Your task to perform on an android device: open device folders in google photos Image 0: 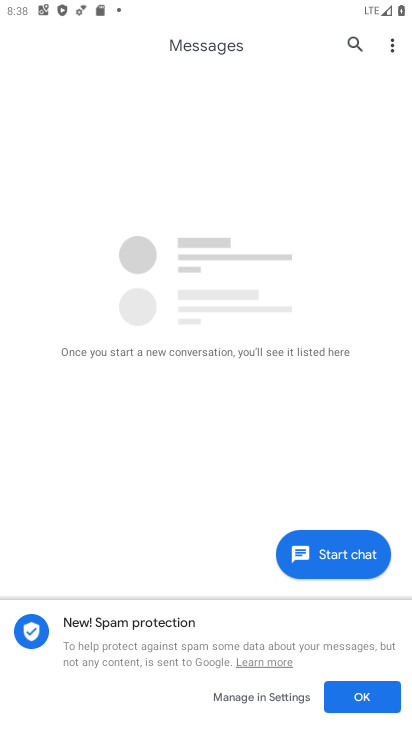
Step 0: press back button
Your task to perform on an android device: open device folders in google photos Image 1: 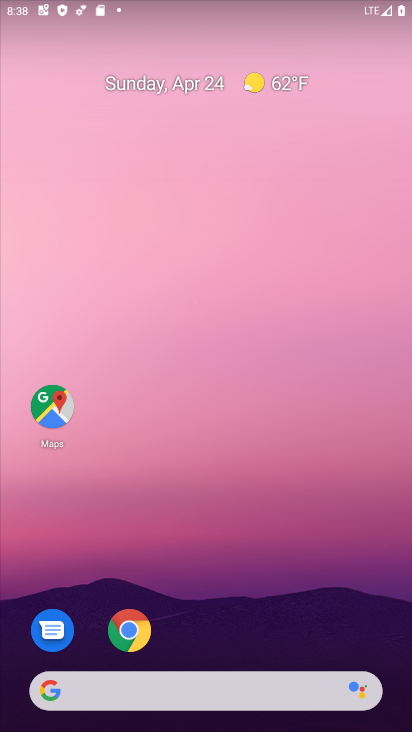
Step 1: drag from (286, 525) to (260, 17)
Your task to perform on an android device: open device folders in google photos Image 2: 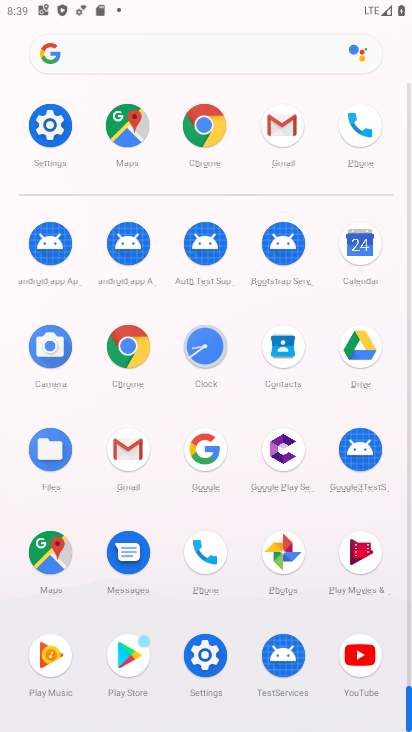
Step 2: drag from (8, 547) to (18, 242)
Your task to perform on an android device: open device folders in google photos Image 3: 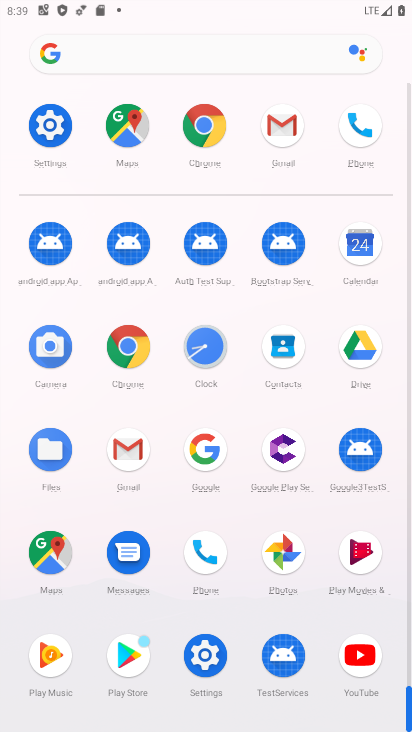
Step 3: click (281, 554)
Your task to perform on an android device: open device folders in google photos Image 4: 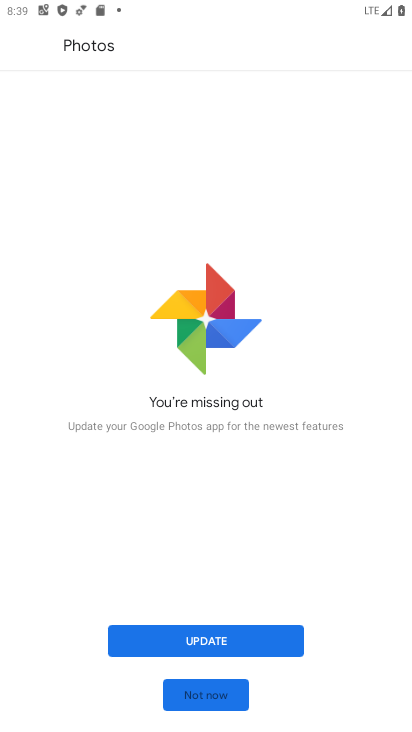
Step 4: click (209, 690)
Your task to perform on an android device: open device folders in google photos Image 5: 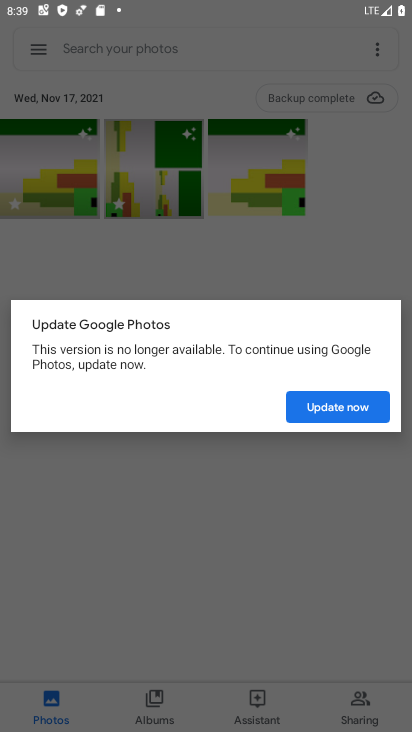
Step 5: click (320, 400)
Your task to perform on an android device: open device folders in google photos Image 6: 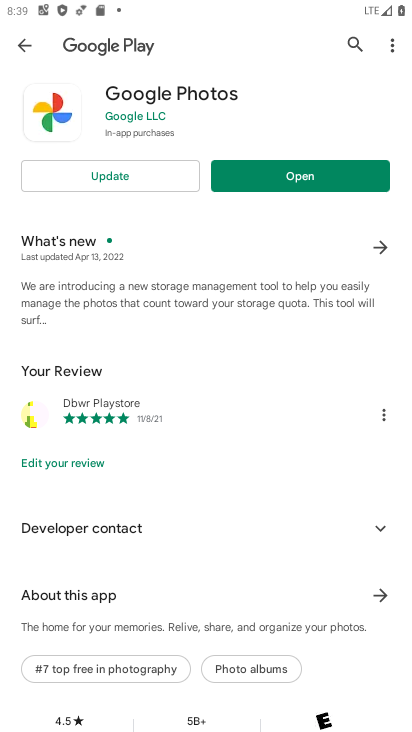
Step 6: click (157, 181)
Your task to perform on an android device: open device folders in google photos Image 7: 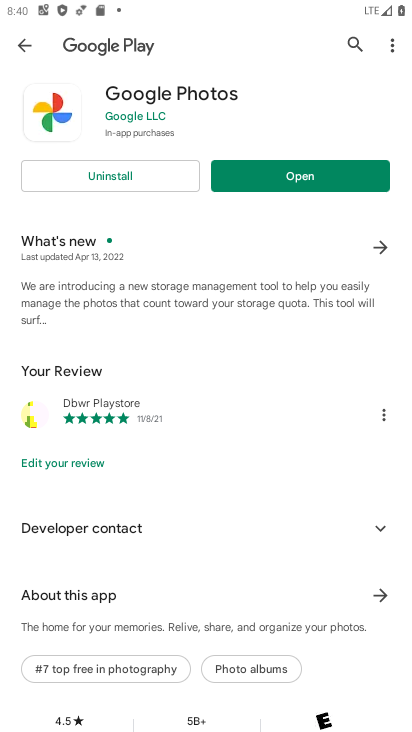
Step 7: click (293, 176)
Your task to perform on an android device: open device folders in google photos Image 8: 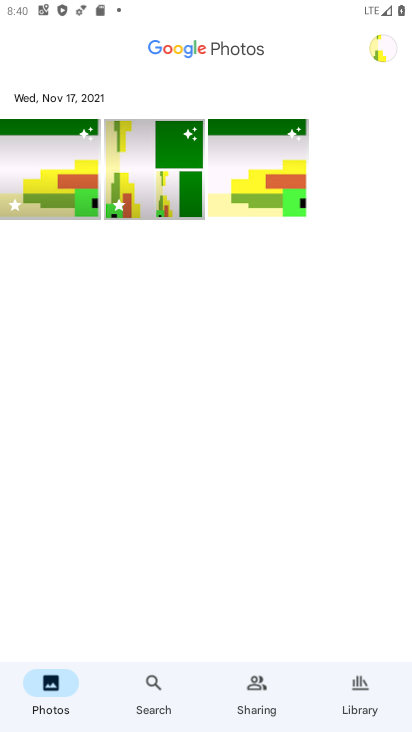
Step 8: click (373, 46)
Your task to perform on an android device: open device folders in google photos Image 9: 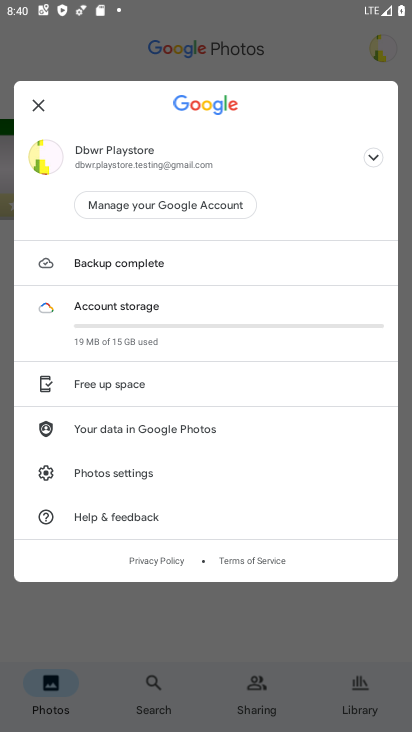
Step 9: click (114, 39)
Your task to perform on an android device: open device folders in google photos Image 10: 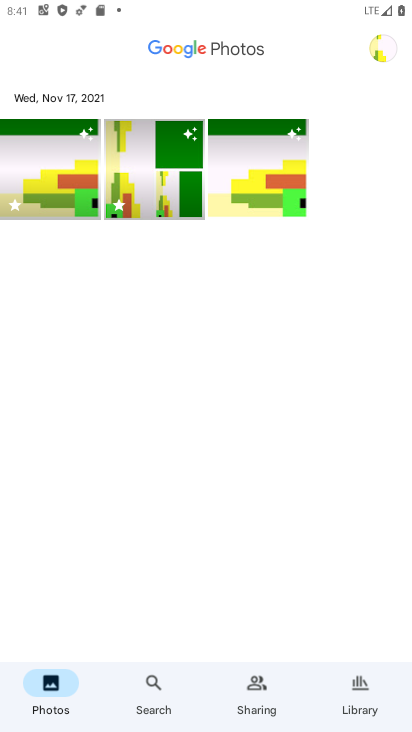
Step 10: click (363, 698)
Your task to perform on an android device: open device folders in google photos Image 11: 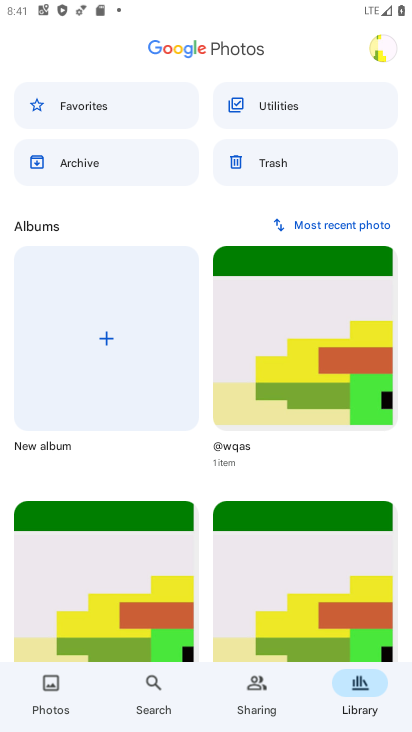
Step 11: drag from (270, 503) to (274, 133)
Your task to perform on an android device: open device folders in google photos Image 12: 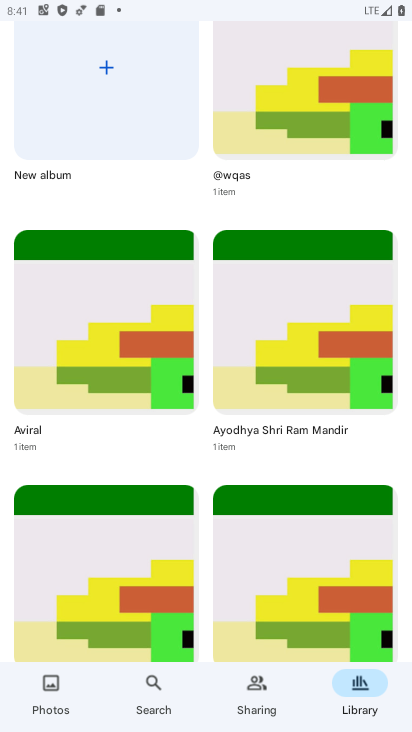
Step 12: drag from (141, 596) to (151, 211)
Your task to perform on an android device: open device folders in google photos Image 13: 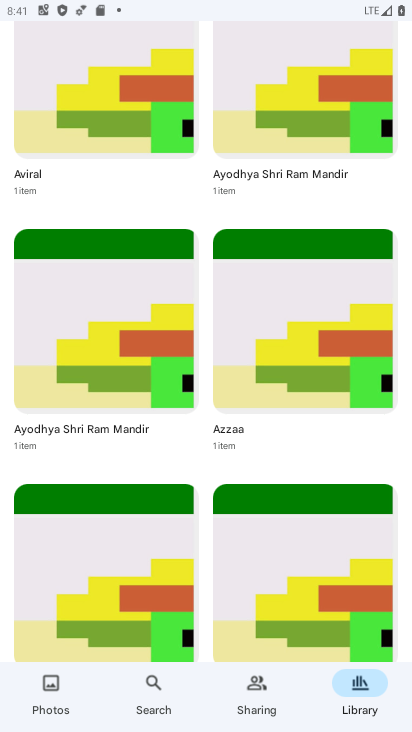
Step 13: drag from (108, 582) to (131, 191)
Your task to perform on an android device: open device folders in google photos Image 14: 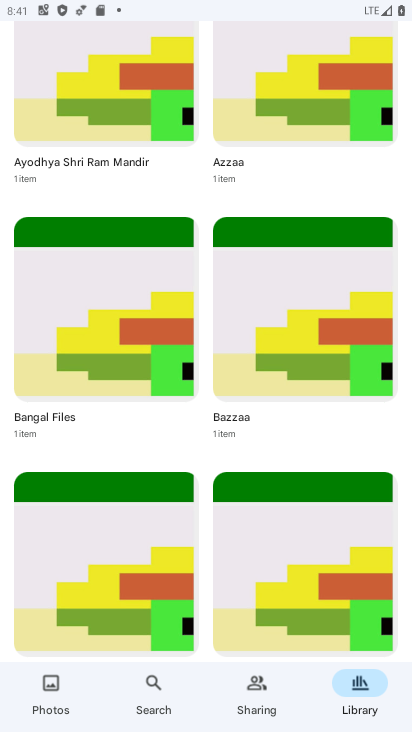
Step 14: drag from (240, 180) to (243, 622)
Your task to perform on an android device: open device folders in google photos Image 15: 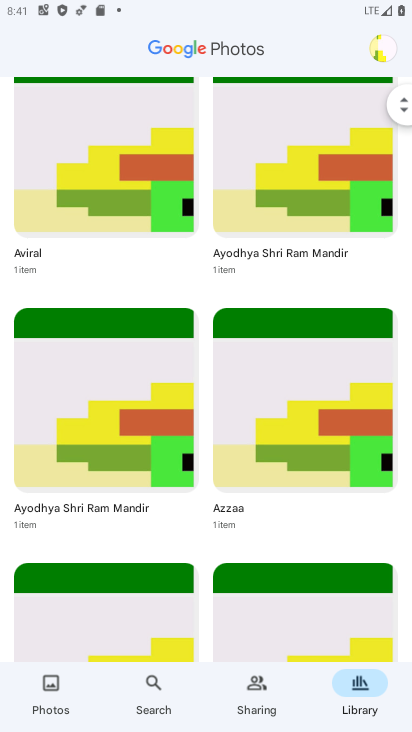
Step 15: drag from (213, 189) to (222, 501)
Your task to perform on an android device: open device folders in google photos Image 16: 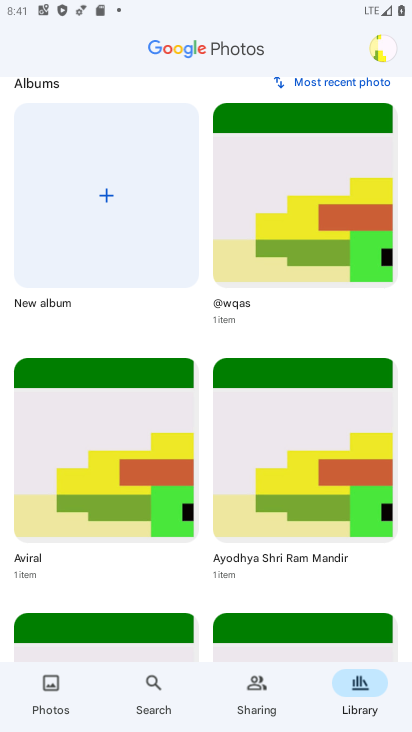
Step 16: drag from (248, 214) to (248, 549)
Your task to perform on an android device: open device folders in google photos Image 17: 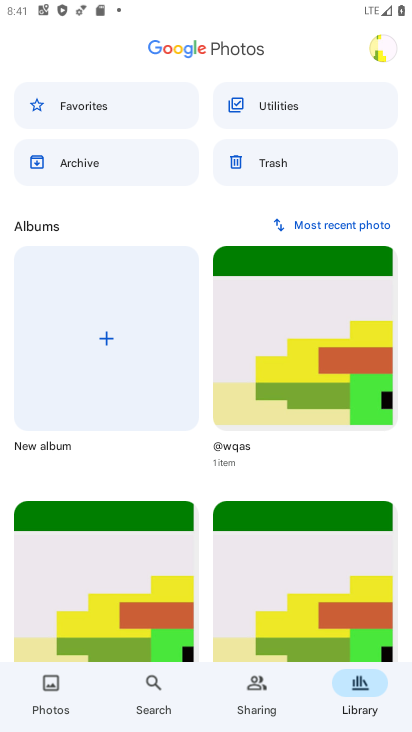
Step 17: drag from (246, 170) to (246, 492)
Your task to perform on an android device: open device folders in google photos Image 18: 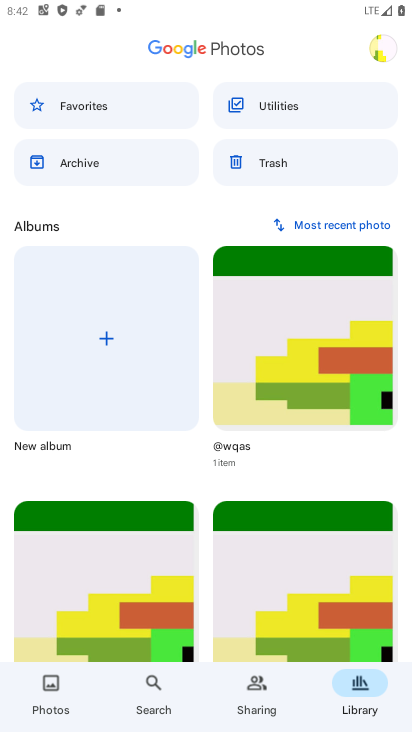
Step 18: click (116, 162)
Your task to perform on an android device: open device folders in google photos Image 19: 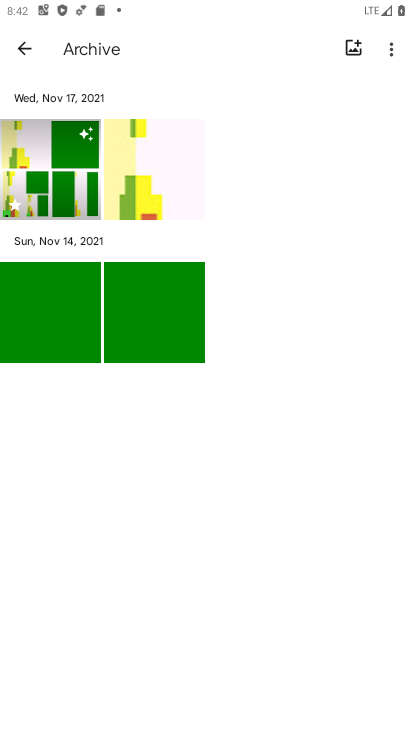
Step 19: click (24, 56)
Your task to perform on an android device: open device folders in google photos Image 20: 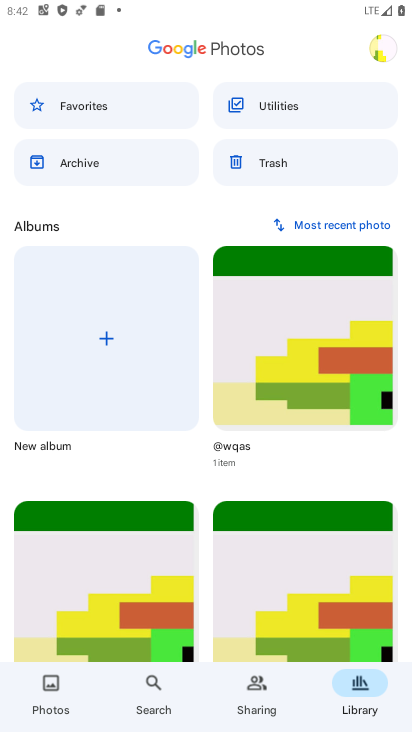
Step 20: task complete